Your task to perform on an android device: turn off wifi Image 0: 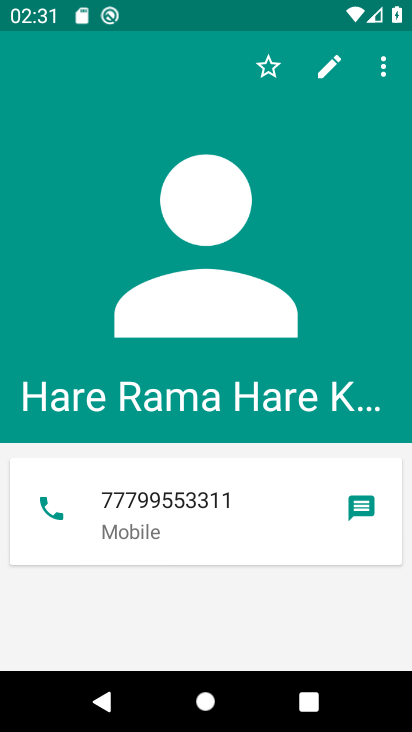
Step 0: press home button
Your task to perform on an android device: turn off wifi Image 1: 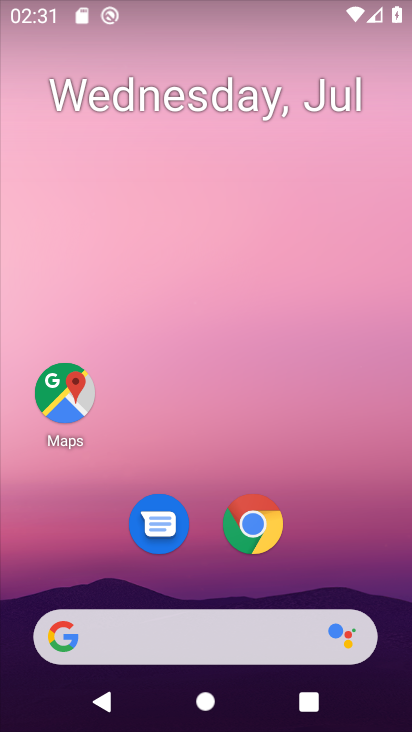
Step 1: drag from (335, 535) to (351, 63)
Your task to perform on an android device: turn off wifi Image 2: 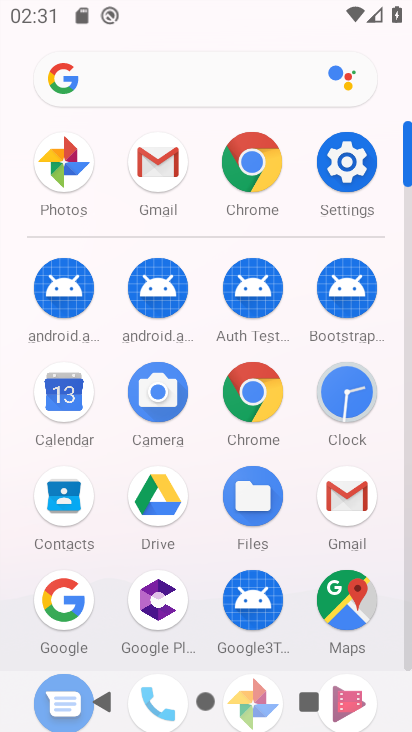
Step 2: click (355, 166)
Your task to perform on an android device: turn off wifi Image 3: 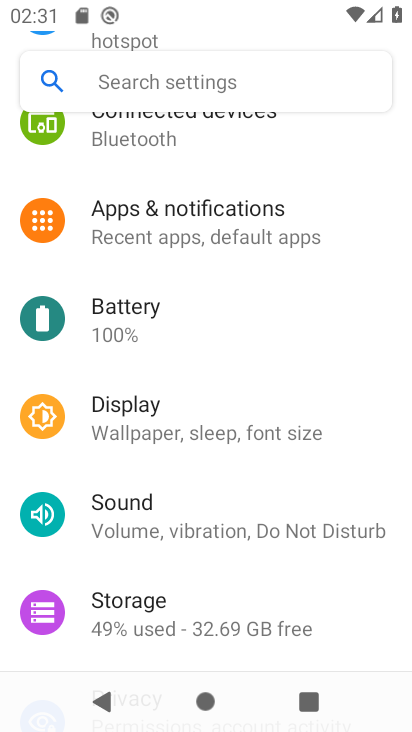
Step 3: drag from (224, 299) to (247, 624)
Your task to perform on an android device: turn off wifi Image 4: 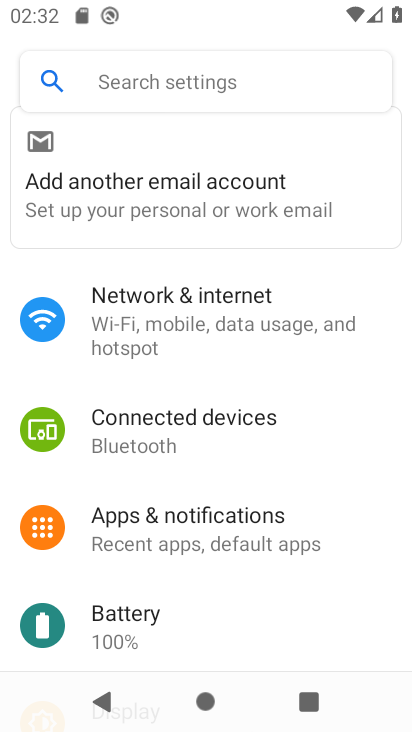
Step 4: click (255, 315)
Your task to perform on an android device: turn off wifi Image 5: 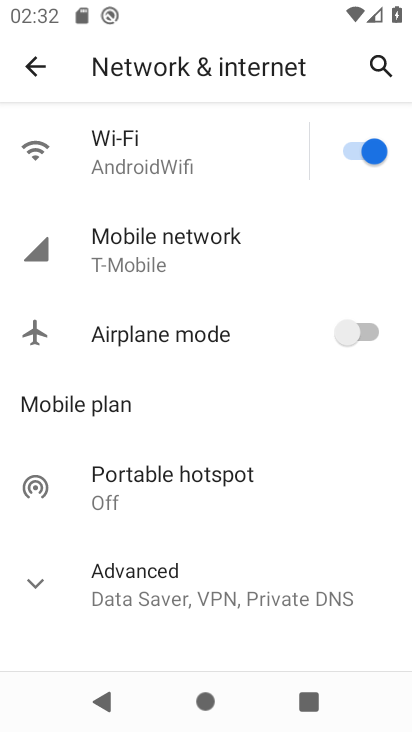
Step 5: click (363, 142)
Your task to perform on an android device: turn off wifi Image 6: 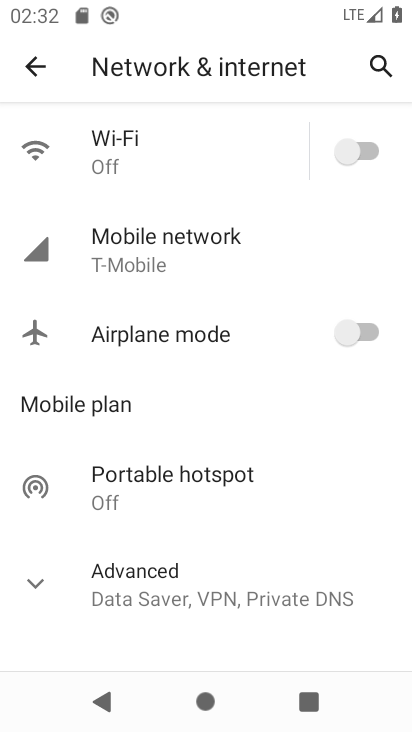
Step 6: task complete